Your task to perform on an android device: change the clock style Image 0: 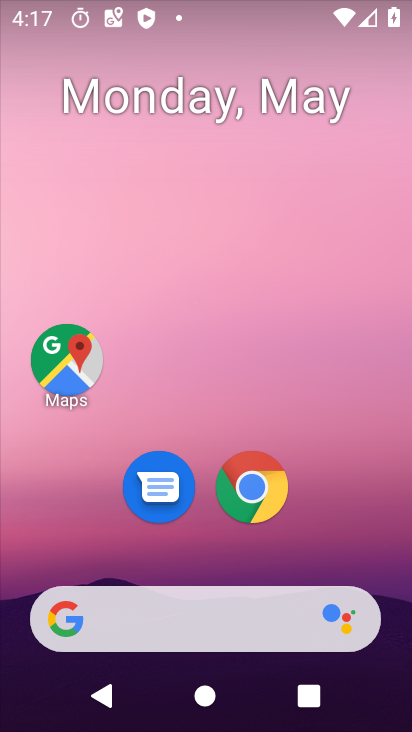
Step 0: drag from (189, 584) to (163, 152)
Your task to perform on an android device: change the clock style Image 1: 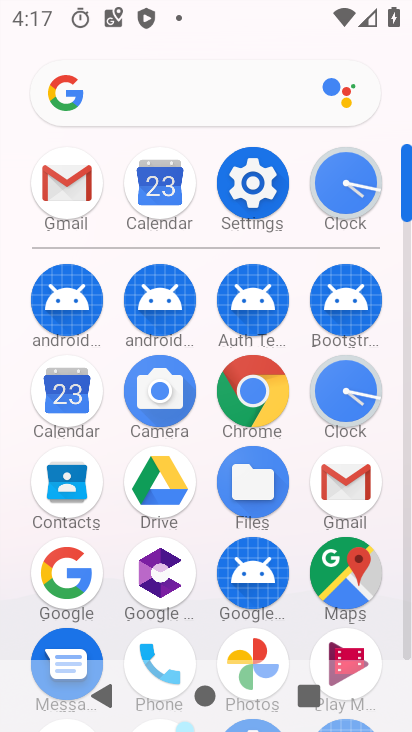
Step 1: click (331, 191)
Your task to perform on an android device: change the clock style Image 2: 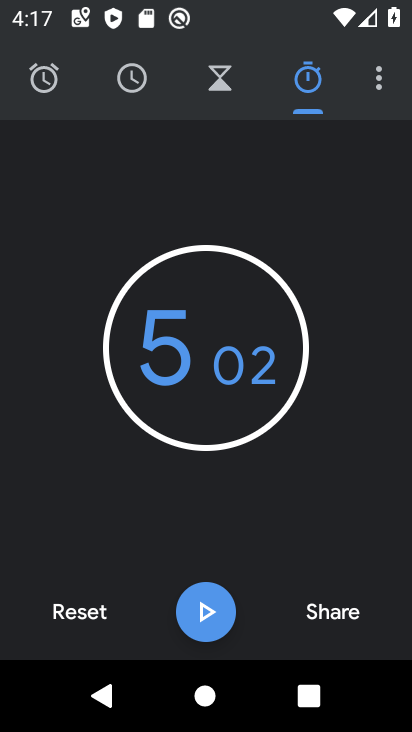
Step 2: click (385, 77)
Your task to perform on an android device: change the clock style Image 3: 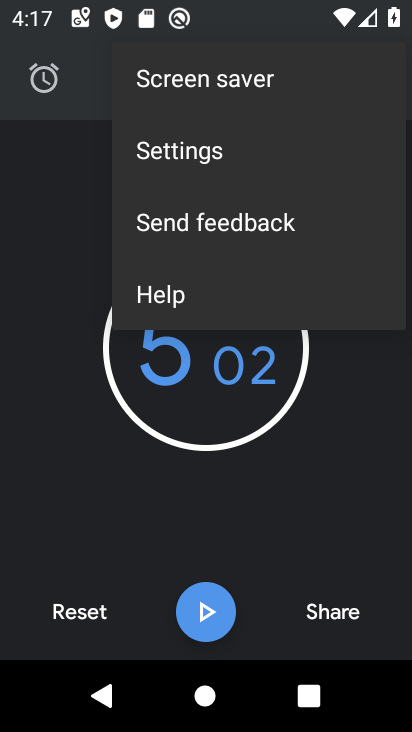
Step 3: click (165, 154)
Your task to perform on an android device: change the clock style Image 4: 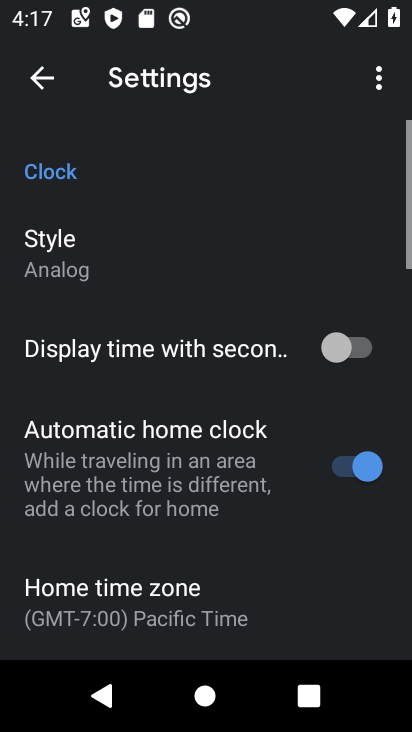
Step 4: click (98, 247)
Your task to perform on an android device: change the clock style Image 5: 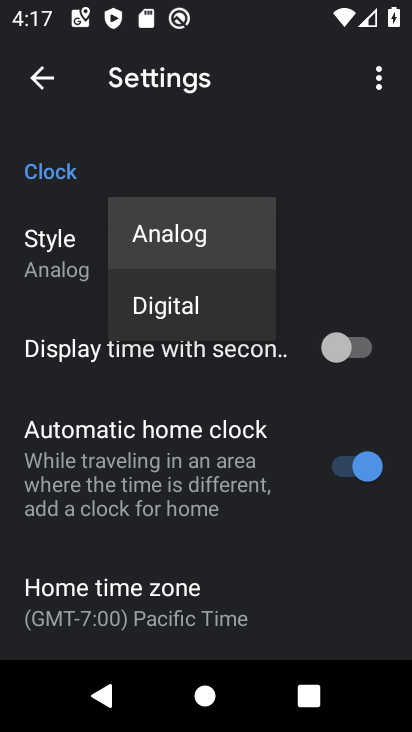
Step 5: click (187, 312)
Your task to perform on an android device: change the clock style Image 6: 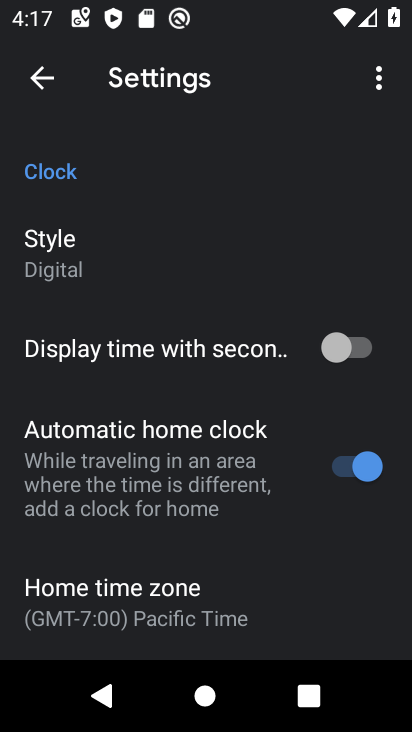
Step 6: task complete